Your task to perform on an android device: Show the shopping cart on bestbuy. Search for logitech g933 on bestbuy, select the first entry, and add it to the cart. Image 0: 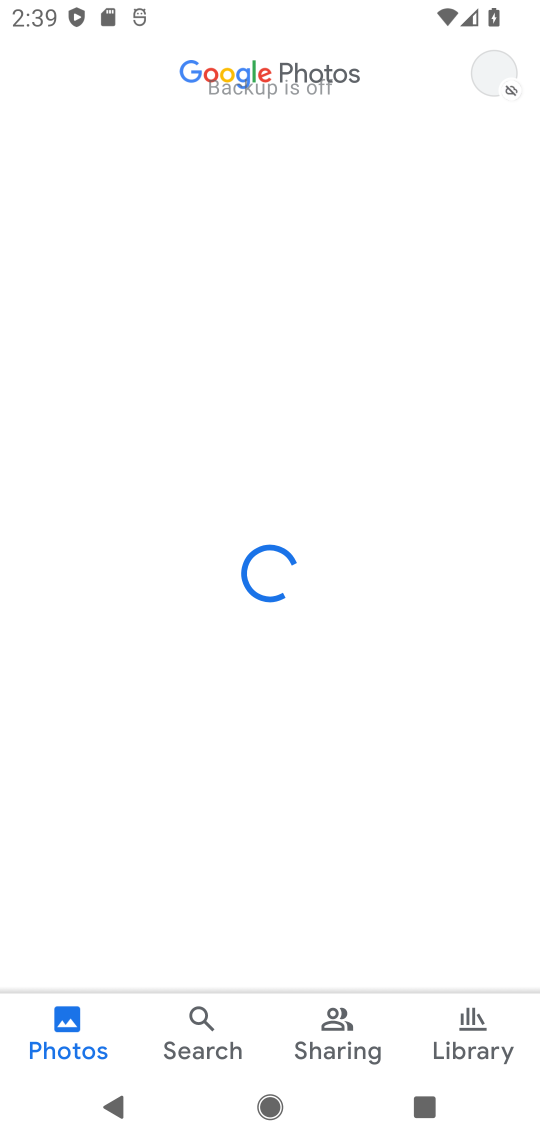
Step 0: press home button
Your task to perform on an android device: Show the shopping cart on bestbuy. Search for logitech g933 on bestbuy, select the first entry, and add it to the cart. Image 1: 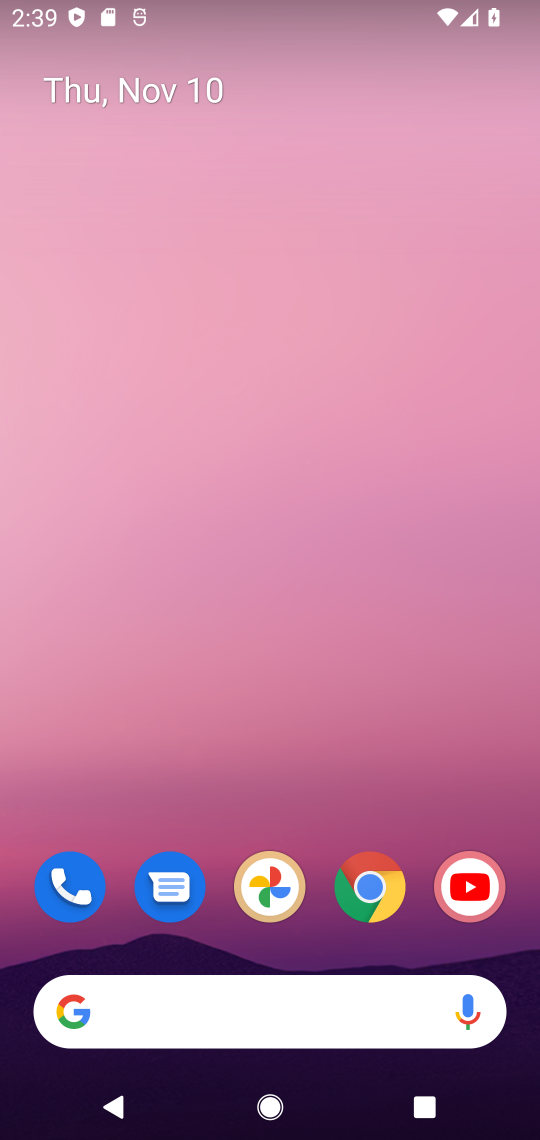
Step 1: drag from (329, 953) to (324, 481)
Your task to perform on an android device: Show the shopping cart on bestbuy. Search for logitech g933 on bestbuy, select the first entry, and add it to the cart. Image 2: 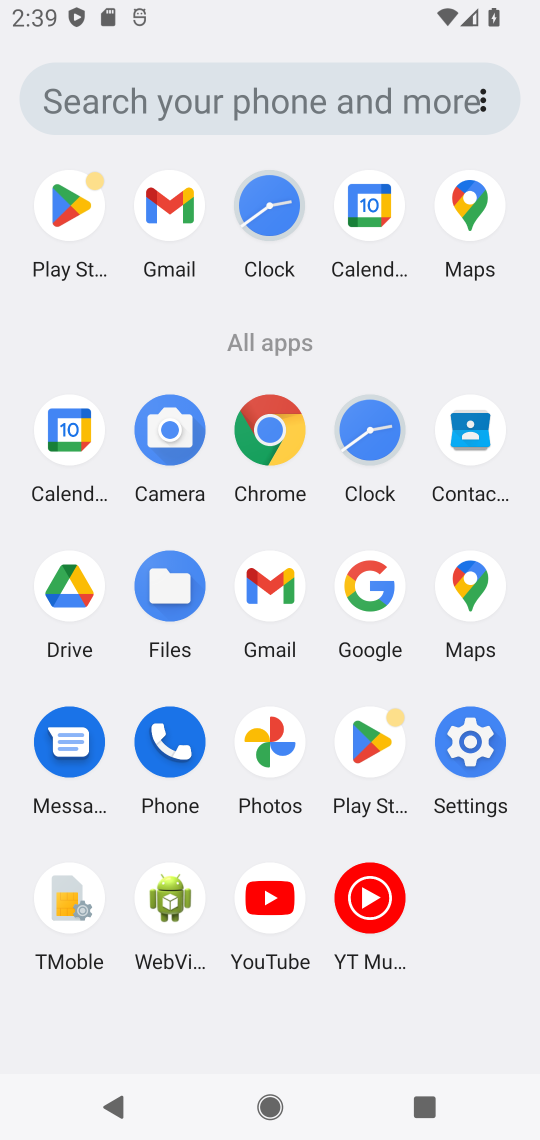
Step 2: click (268, 445)
Your task to perform on an android device: Show the shopping cart on bestbuy. Search for logitech g933 on bestbuy, select the first entry, and add it to the cart. Image 3: 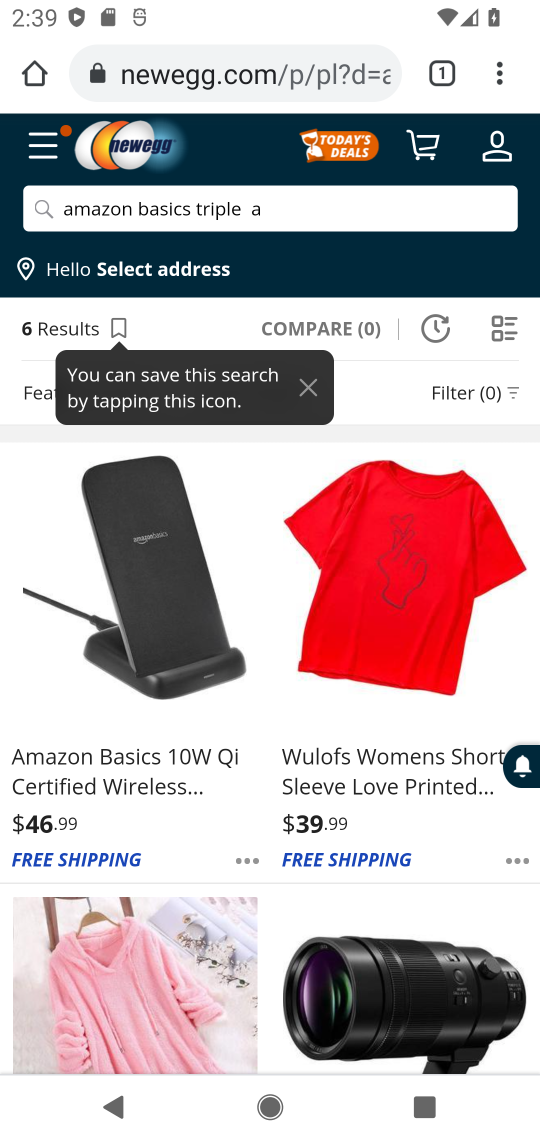
Step 3: click (266, 74)
Your task to perform on an android device: Show the shopping cart on bestbuy. Search for logitech g933 on bestbuy, select the first entry, and add it to the cart. Image 4: 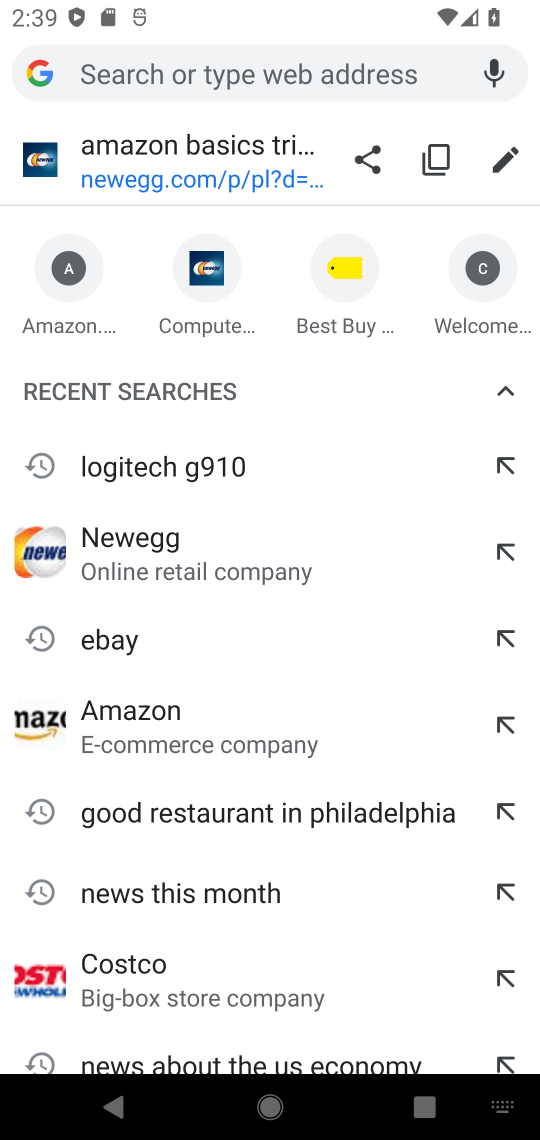
Step 4: type "bestbuy.com"
Your task to perform on an android device: Show the shopping cart on bestbuy. Search for logitech g933 on bestbuy, select the first entry, and add it to the cart. Image 5: 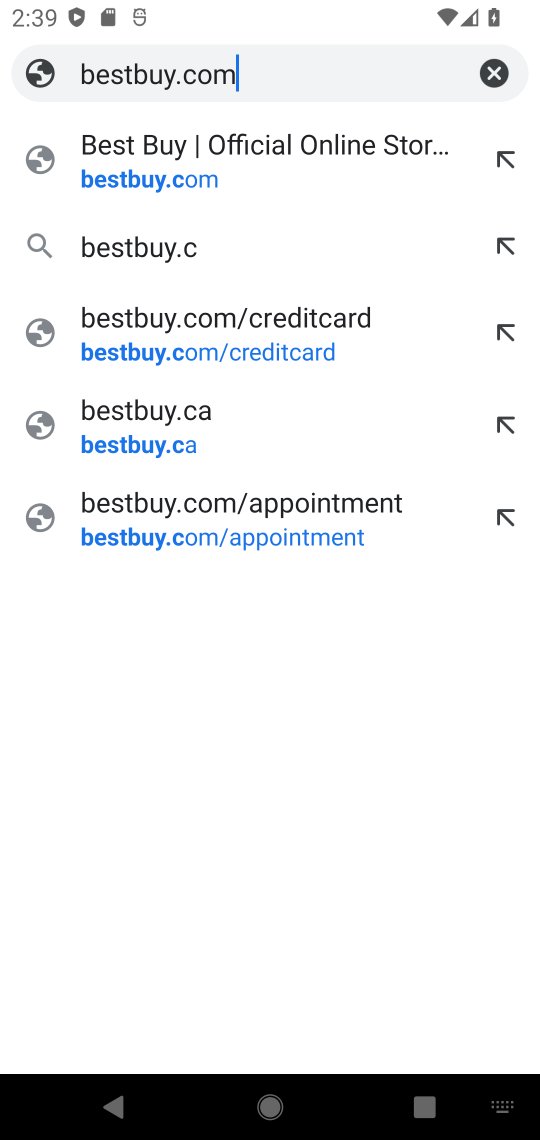
Step 5: press enter
Your task to perform on an android device: Show the shopping cart on bestbuy. Search for logitech g933 on bestbuy, select the first entry, and add it to the cart. Image 6: 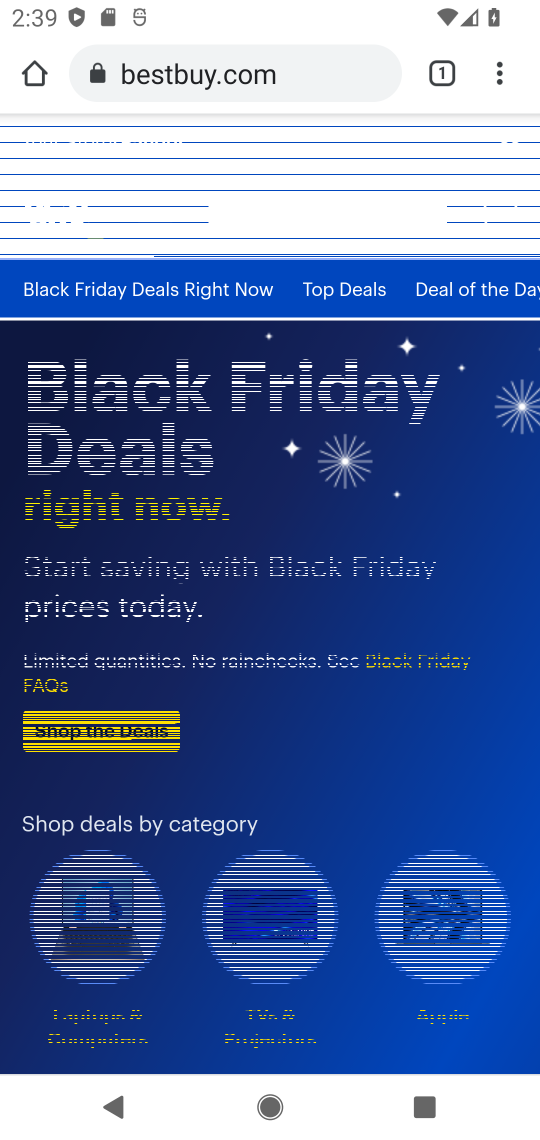
Step 6: click (510, 230)
Your task to perform on an android device: Show the shopping cart on bestbuy. Search for logitech g933 on bestbuy, select the first entry, and add it to the cart. Image 7: 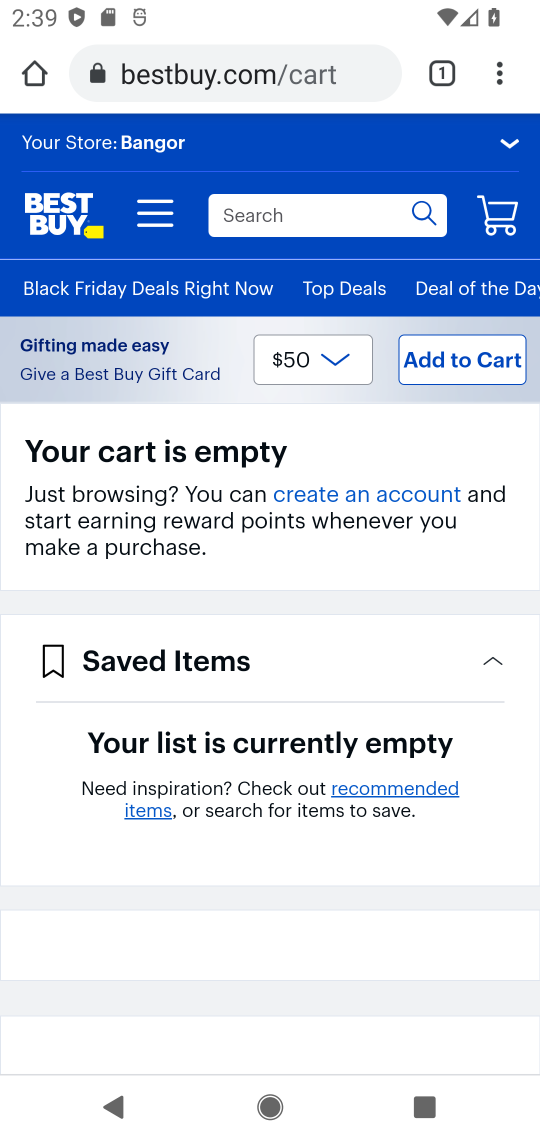
Step 7: click (356, 213)
Your task to perform on an android device: Show the shopping cart on bestbuy. Search for logitech g933 on bestbuy, select the first entry, and add it to the cart. Image 8: 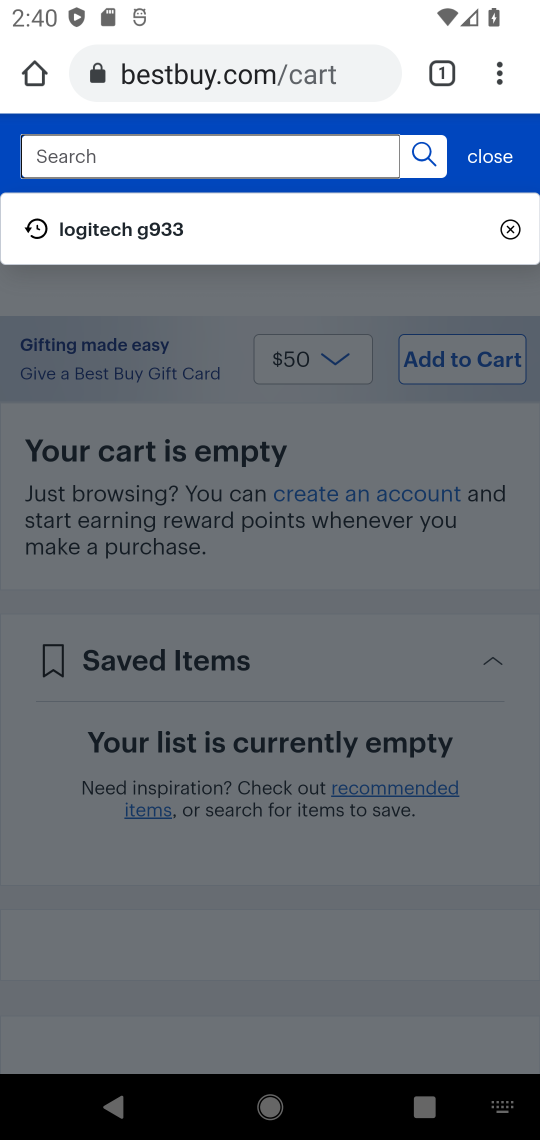
Step 8: type "logitech g933"
Your task to perform on an android device: Show the shopping cart on bestbuy. Search for logitech g933 on bestbuy, select the first entry, and add it to the cart. Image 9: 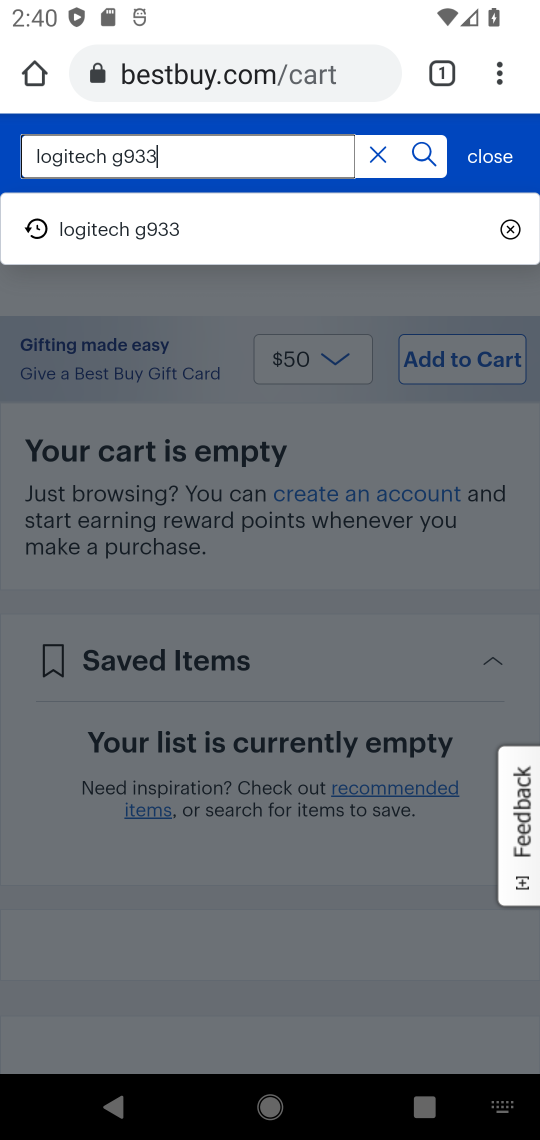
Step 9: press enter
Your task to perform on an android device: Show the shopping cart on bestbuy. Search for logitech g933 on bestbuy, select the first entry, and add it to the cart. Image 10: 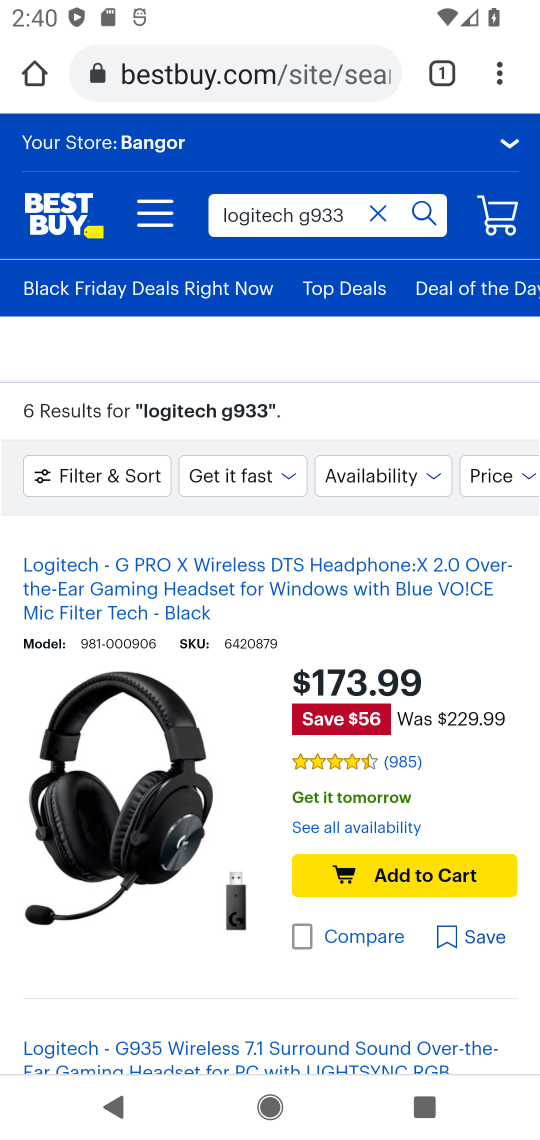
Step 10: task complete